Your task to perform on an android device: turn off notifications settings in the gmail app Image 0: 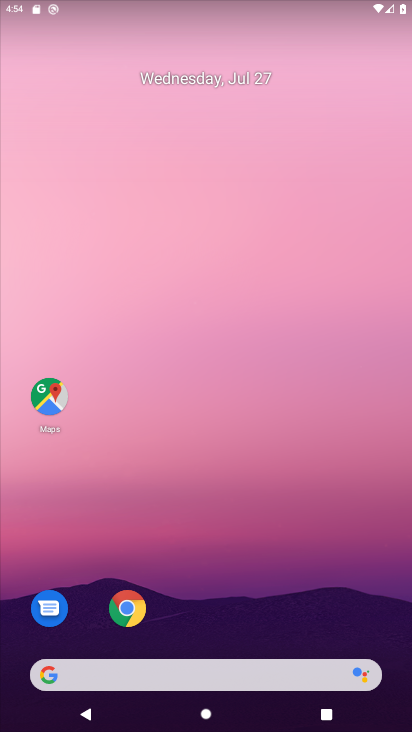
Step 0: drag from (331, 644) to (329, 117)
Your task to perform on an android device: turn off notifications settings in the gmail app Image 1: 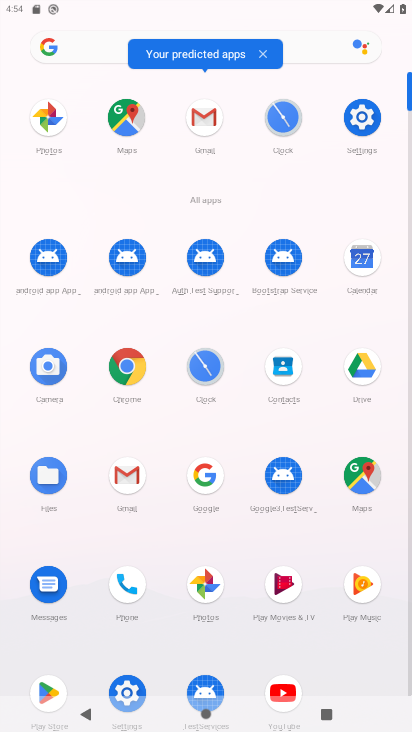
Step 1: click (203, 126)
Your task to perform on an android device: turn off notifications settings in the gmail app Image 2: 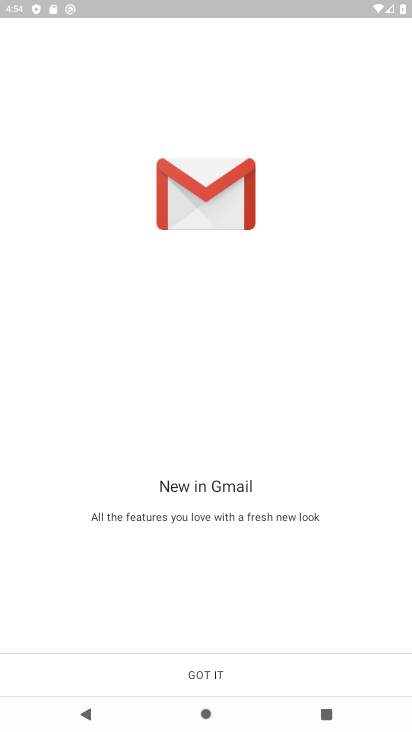
Step 2: click (209, 663)
Your task to perform on an android device: turn off notifications settings in the gmail app Image 3: 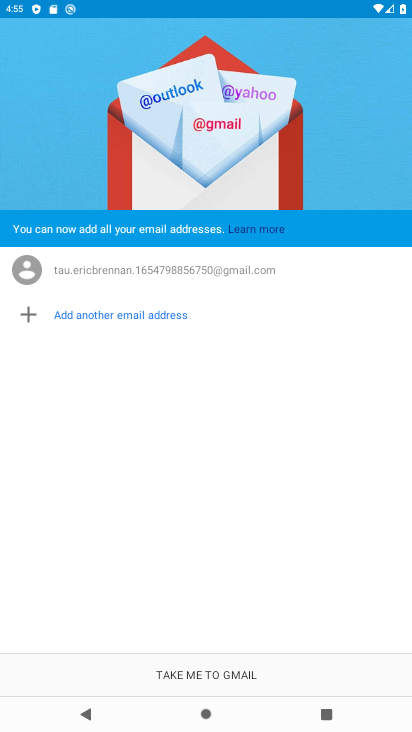
Step 3: click (209, 663)
Your task to perform on an android device: turn off notifications settings in the gmail app Image 4: 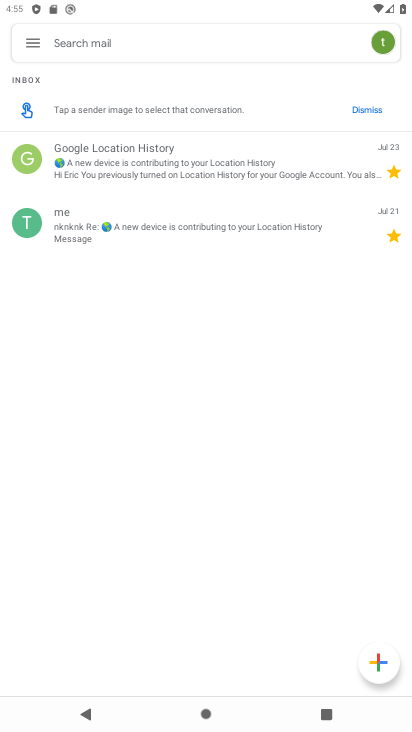
Step 4: click (26, 44)
Your task to perform on an android device: turn off notifications settings in the gmail app Image 5: 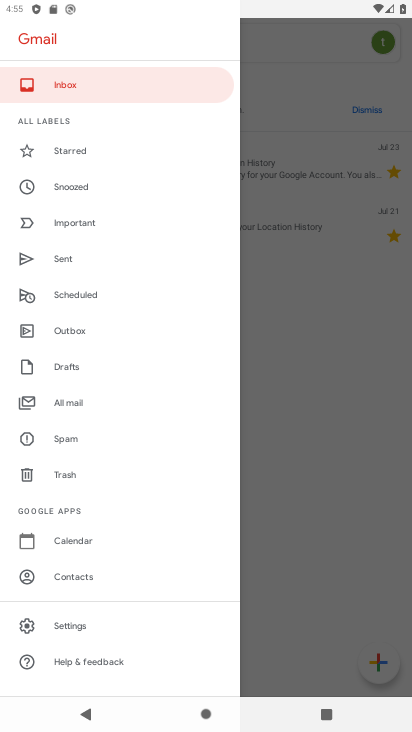
Step 5: click (87, 619)
Your task to perform on an android device: turn off notifications settings in the gmail app Image 6: 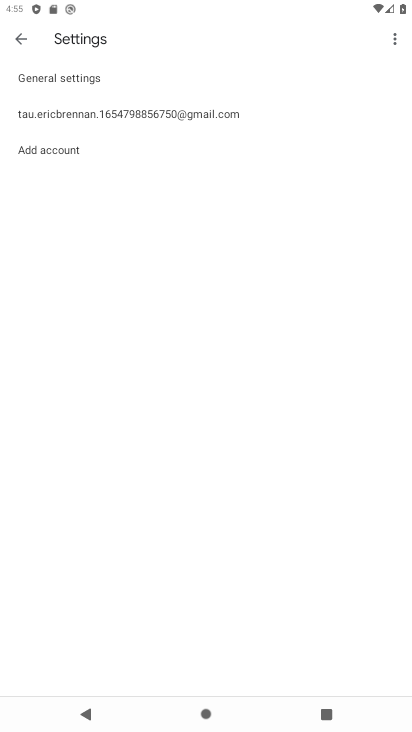
Step 6: click (223, 97)
Your task to perform on an android device: turn off notifications settings in the gmail app Image 7: 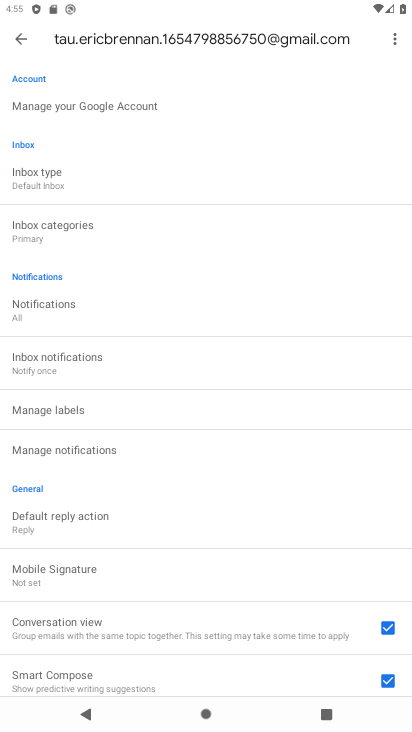
Step 7: click (196, 439)
Your task to perform on an android device: turn off notifications settings in the gmail app Image 8: 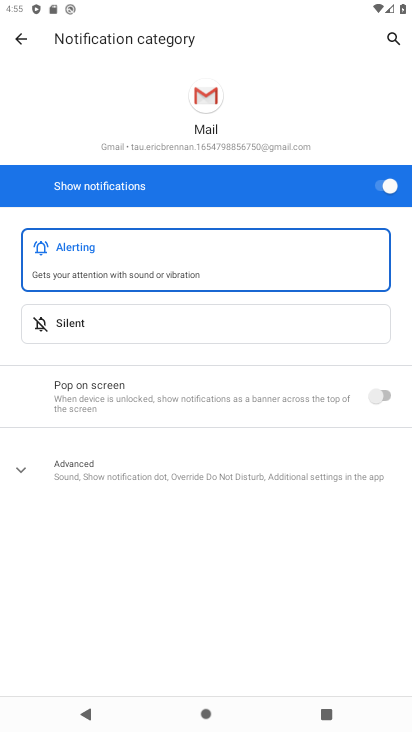
Step 8: task complete